Your task to perform on an android device: Search for sushi restaurants on Maps Image 0: 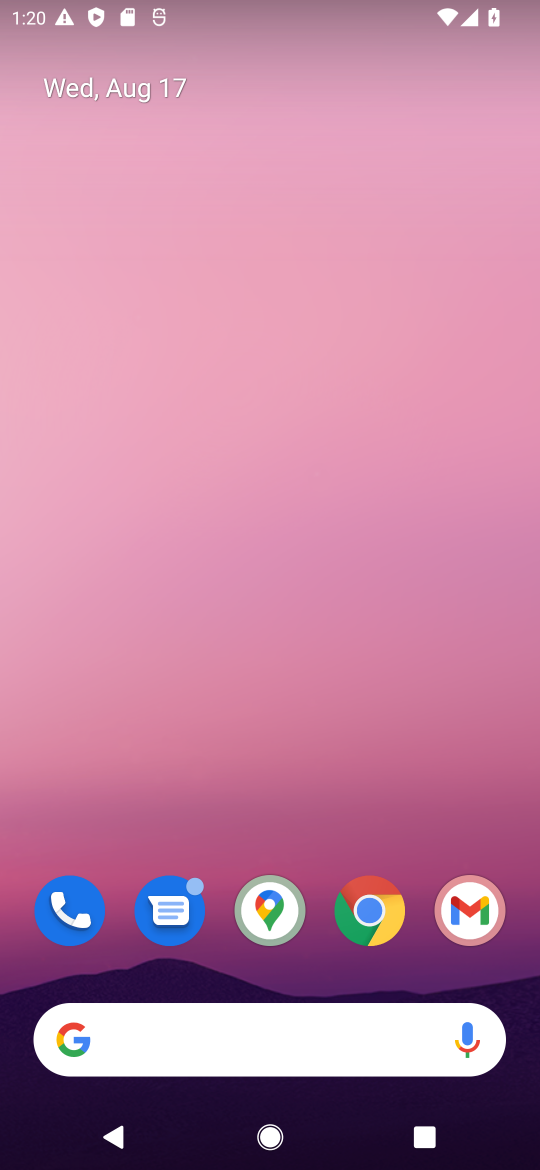
Step 0: click (281, 904)
Your task to perform on an android device: Search for sushi restaurants on Maps Image 1: 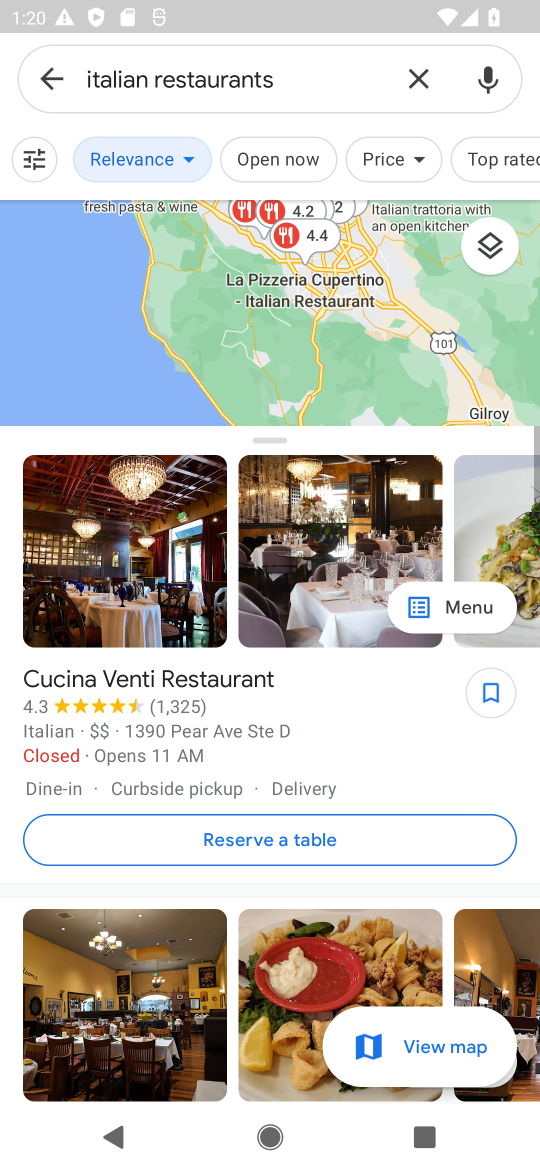
Step 1: click (408, 76)
Your task to perform on an android device: Search for sushi restaurants on Maps Image 2: 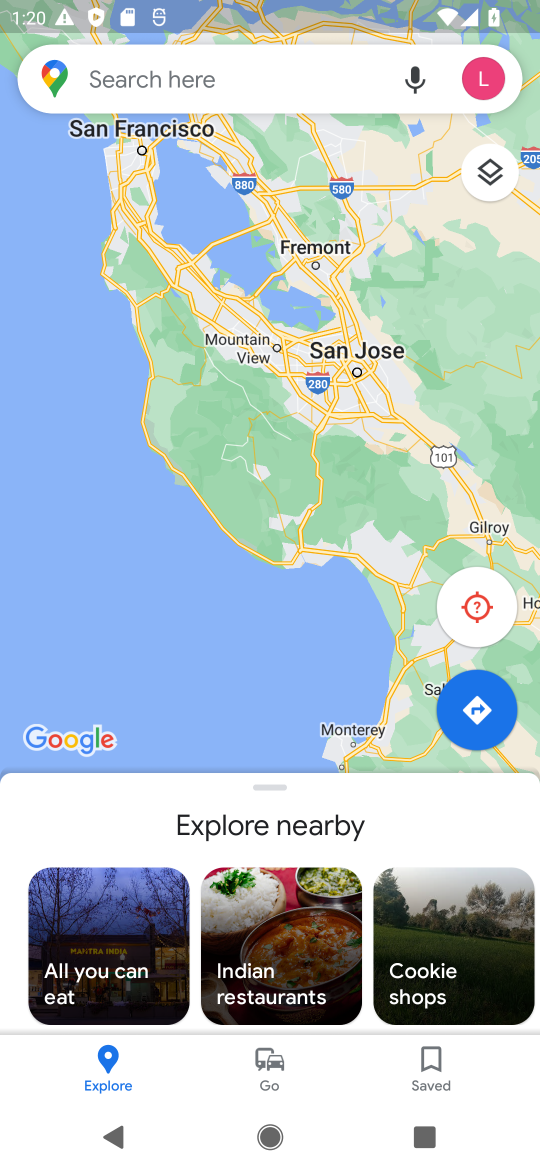
Step 2: click (254, 77)
Your task to perform on an android device: Search for sushi restaurants on Maps Image 3: 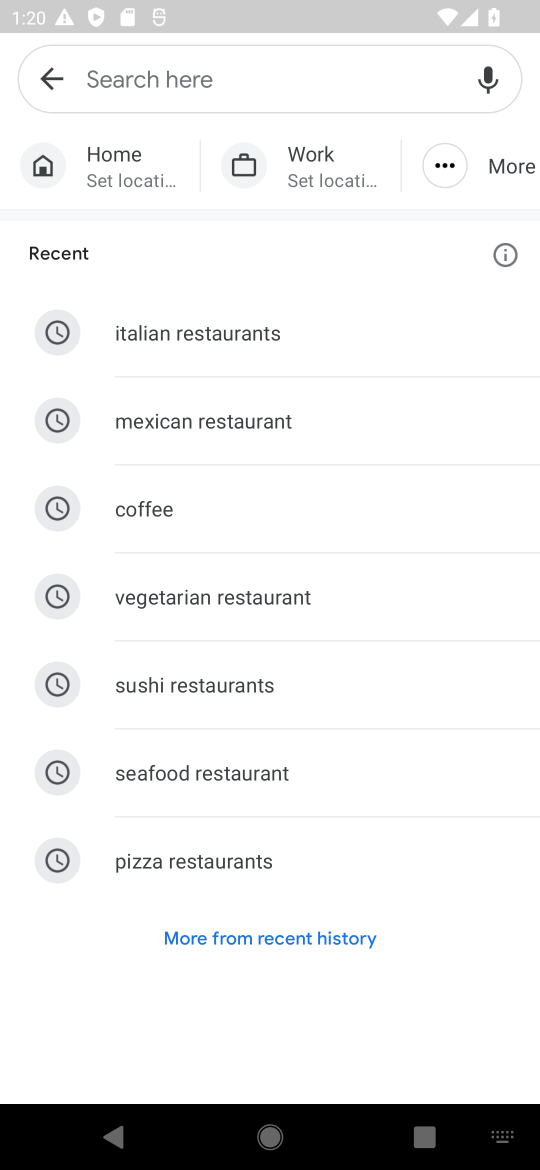
Step 3: click (186, 688)
Your task to perform on an android device: Search for sushi restaurants on Maps Image 4: 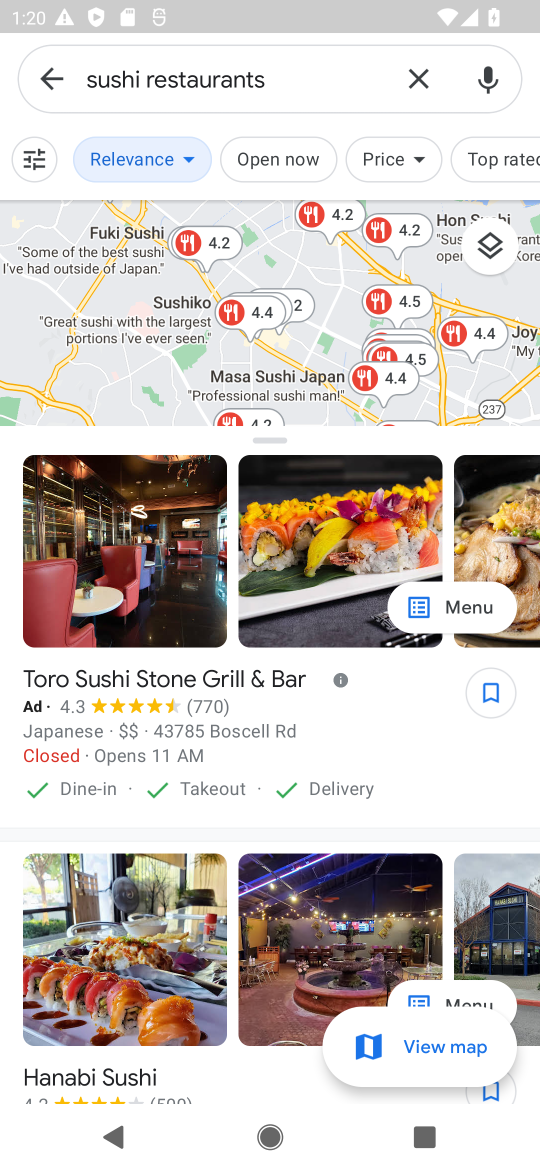
Step 4: task complete